Your task to perform on an android device: turn on airplane mode Image 0: 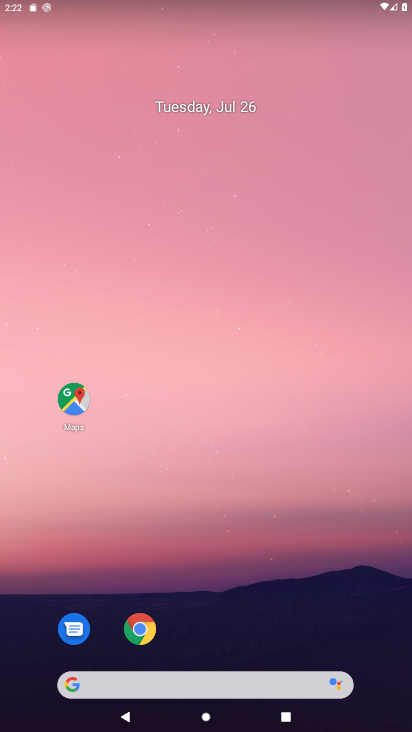
Step 0: drag from (204, 647) to (185, 73)
Your task to perform on an android device: turn on airplane mode Image 1: 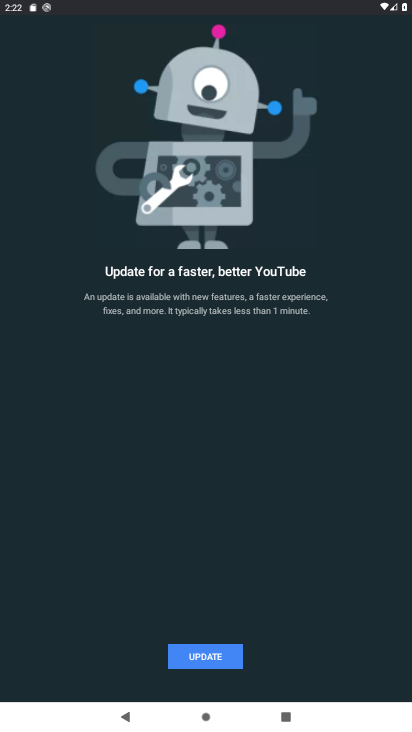
Step 1: press back button
Your task to perform on an android device: turn on airplane mode Image 2: 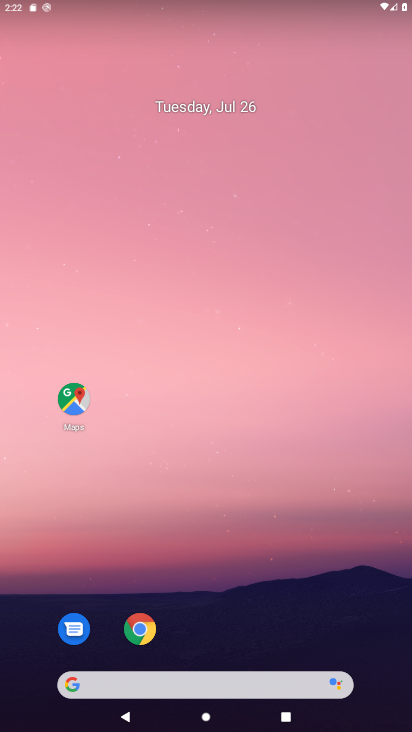
Step 2: drag from (229, 606) to (227, 66)
Your task to perform on an android device: turn on airplane mode Image 3: 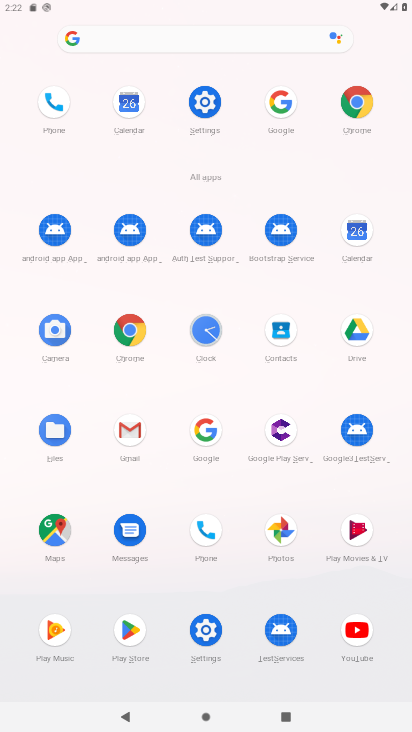
Step 3: click (211, 116)
Your task to perform on an android device: turn on airplane mode Image 4: 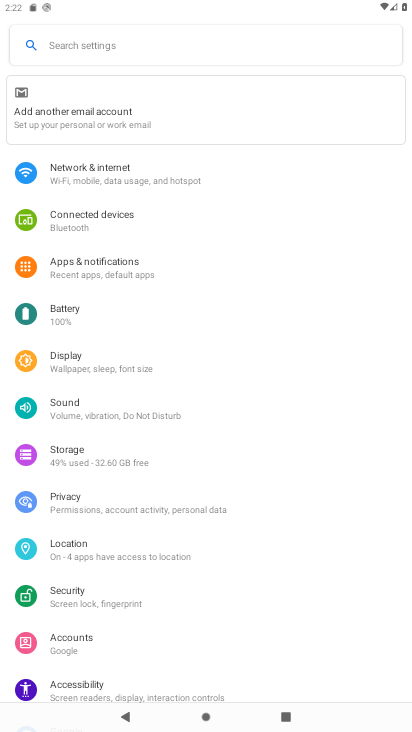
Step 4: click (98, 186)
Your task to perform on an android device: turn on airplane mode Image 5: 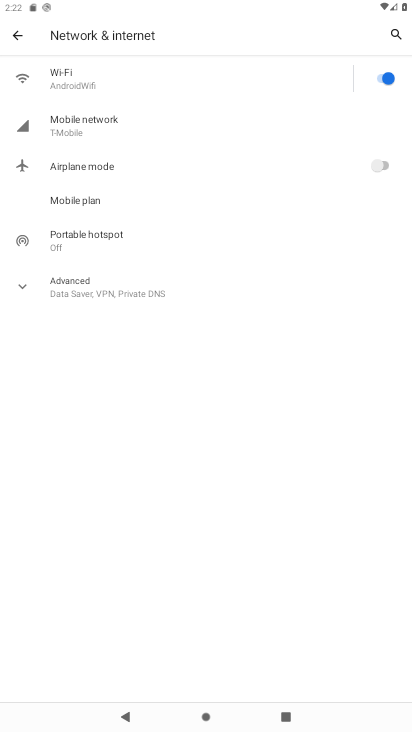
Step 5: click (369, 167)
Your task to perform on an android device: turn on airplane mode Image 6: 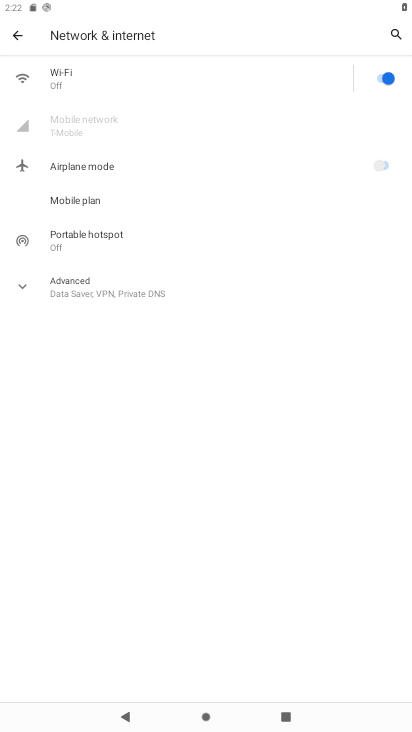
Step 6: task complete